Your task to perform on an android device: Check the new Jordans on Nike. Image 0: 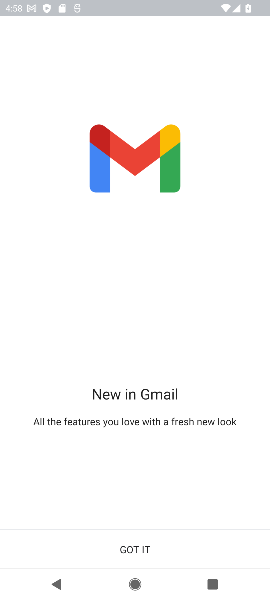
Step 0: type ""
Your task to perform on an android device: Check the new Jordans on Nike. Image 1: 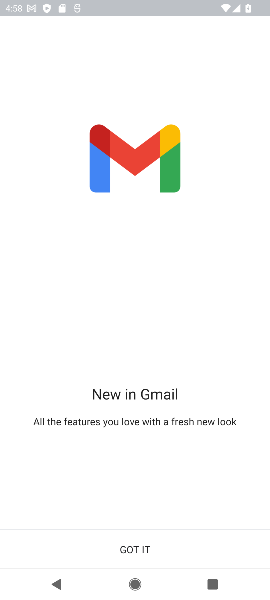
Step 1: press home button
Your task to perform on an android device: Check the new Jordans on Nike. Image 2: 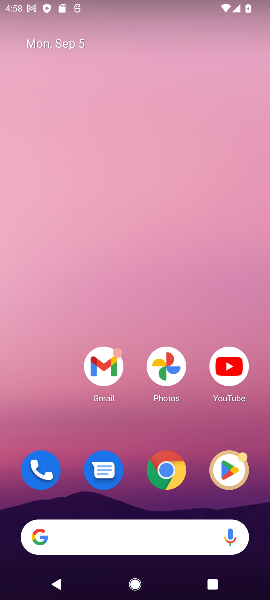
Step 2: type "nike"
Your task to perform on an android device: Check the new Jordans on Nike. Image 3: 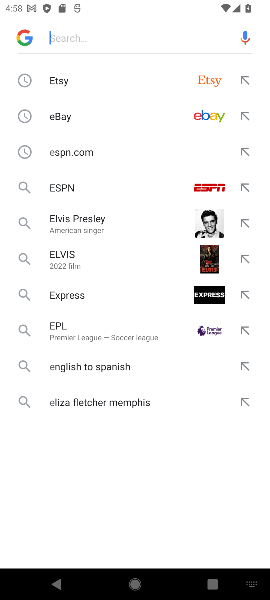
Step 3: type "nike"
Your task to perform on an android device: Check the new Jordans on Nike. Image 4: 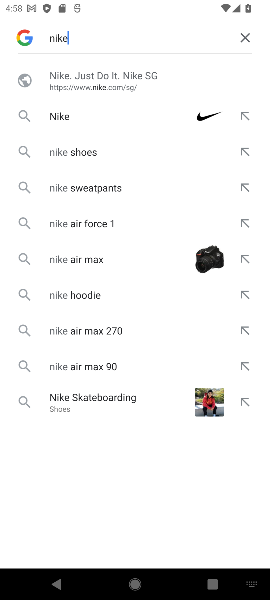
Step 4: click (97, 78)
Your task to perform on an android device: Check the new Jordans on Nike. Image 5: 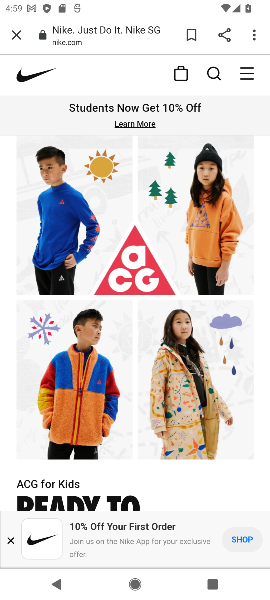
Step 5: click (209, 72)
Your task to perform on an android device: Check the new Jordans on Nike. Image 6: 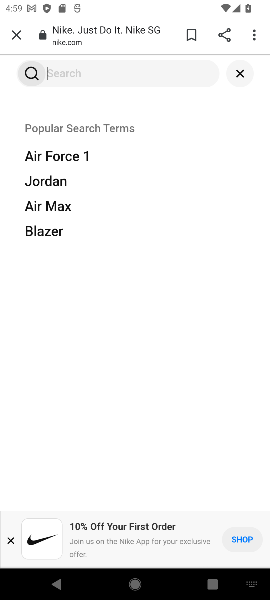
Step 6: type "new jordans"
Your task to perform on an android device: Check the new Jordans on Nike. Image 7: 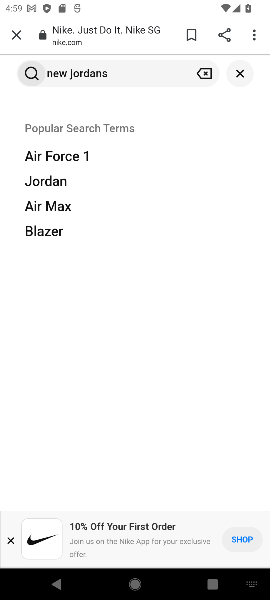
Step 7: press enter
Your task to perform on an android device: Check the new Jordans on Nike. Image 8: 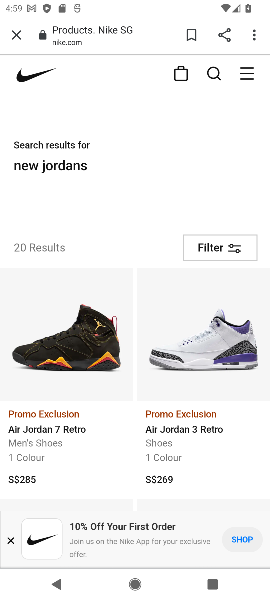
Step 8: drag from (129, 171) to (158, 42)
Your task to perform on an android device: Check the new Jordans on Nike. Image 9: 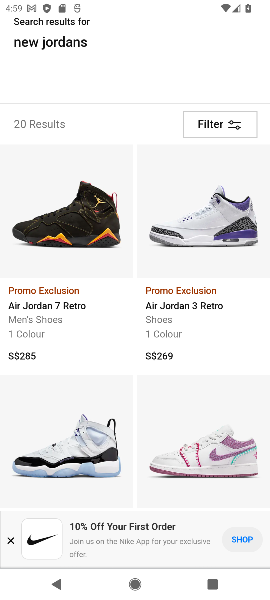
Step 9: drag from (126, 365) to (137, 130)
Your task to perform on an android device: Check the new Jordans on Nike. Image 10: 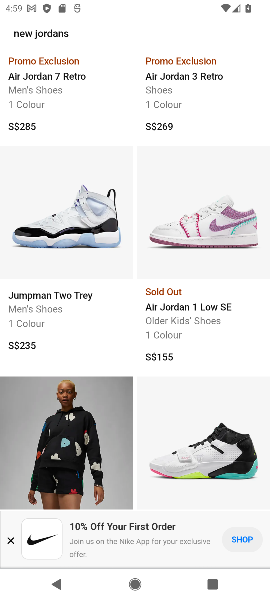
Step 10: drag from (252, 356) to (258, 307)
Your task to perform on an android device: Check the new Jordans on Nike. Image 11: 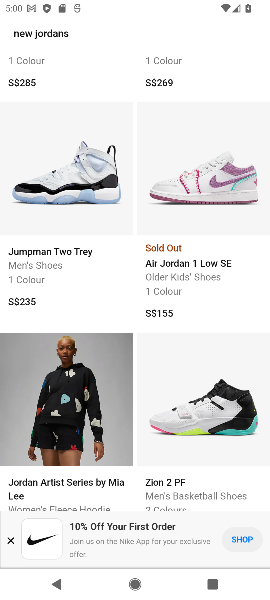
Step 11: click (135, 57)
Your task to perform on an android device: Check the new Jordans on Nike. Image 12: 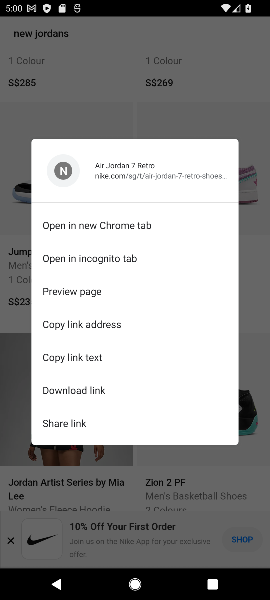
Step 12: click (249, 94)
Your task to perform on an android device: Check the new Jordans on Nike. Image 13: 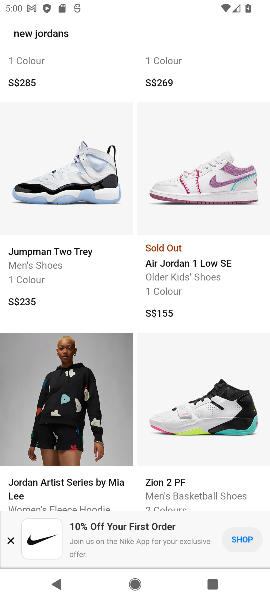
Step 13: click (129, 269)
Your task to perform on an android device: Check the new Jordans on Nike. Image 14: 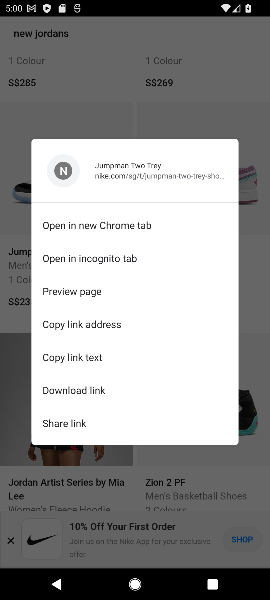
Step 14: click (268, 103)
Your task to perform on an android device: Check the new Jordans on Nike. Image 15: 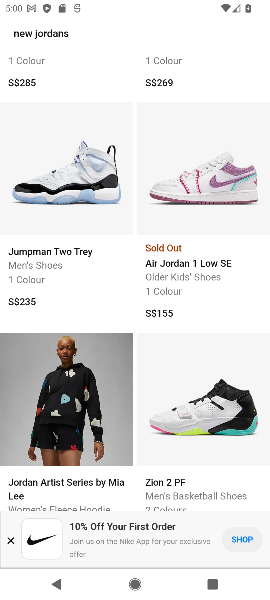
Step 15: task complete